Your task to perform on an android device: open chrome privacy settings Image 0: 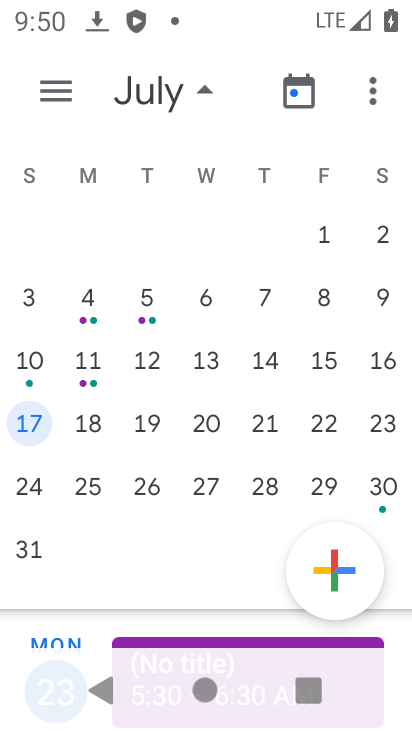
Step 0: press home button
Your task to perform on an android device: open chrome privacy settings Image 1: 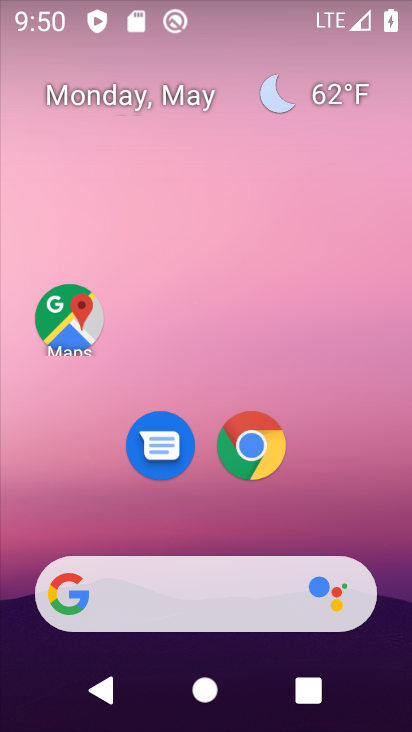
Step 1: drag from (396, 623) to (147, 5)
Your task to perform on an android device: open chrome privacy settings Image 2: 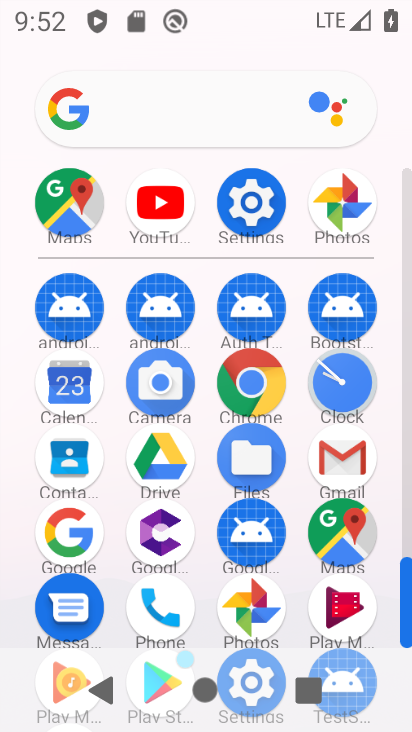
Step 2: click (248, 404)
Your task to perform on an android device: open chrome privacy settings Image 3: 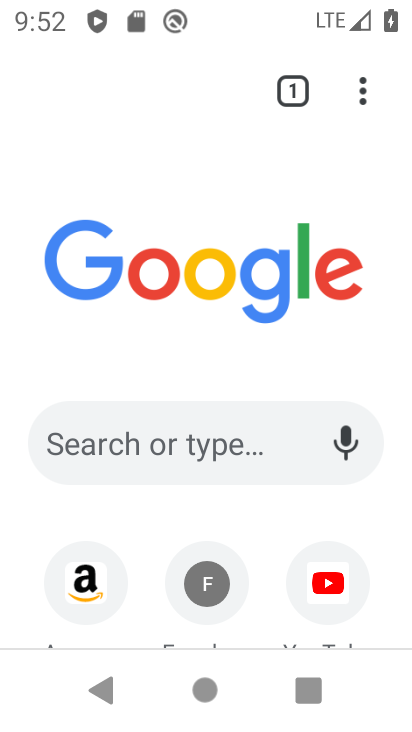
Step 3: click (356, 89)
Your task to perform on an android device: open chrome privacy settings Image 4: 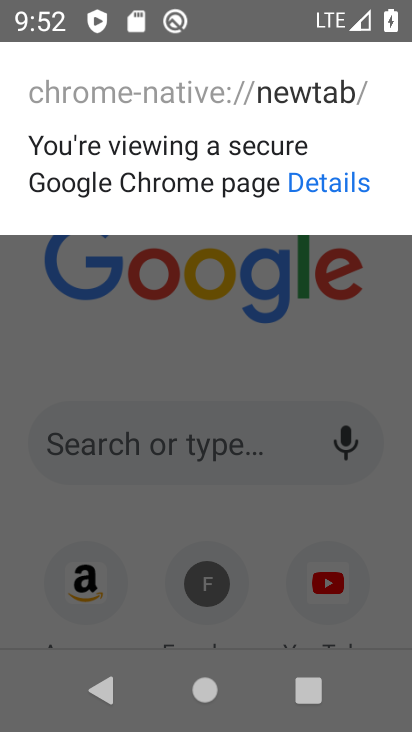
Step 4: press back button
Your task to perform on an android device: open chrome privacy settings Image 5: 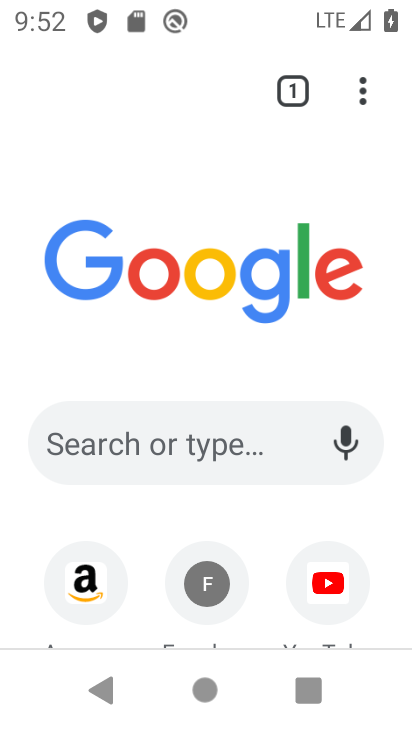
Step 5: click (358, 86)
Your task to perform on an android device: open chrome privacy settings Image 6: 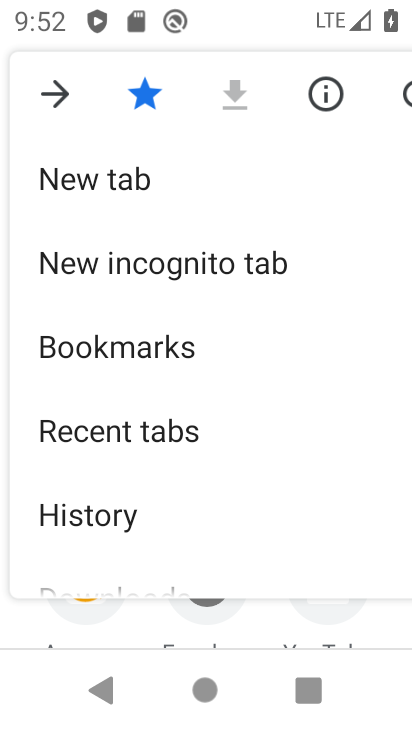
Step 6: drag from (216, 569) to (220, 151)
Your task to perform on an android device: open chrome privacy settings Image 7: 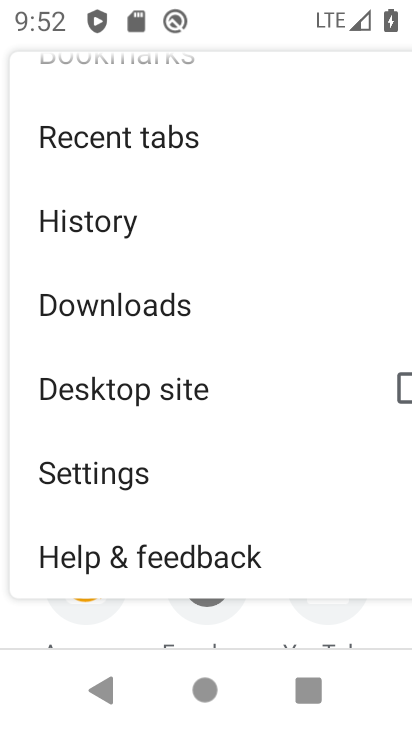
Step 7: click (174, 472)
Your task to perform on an android device: open chrome privacy settings Image 8: 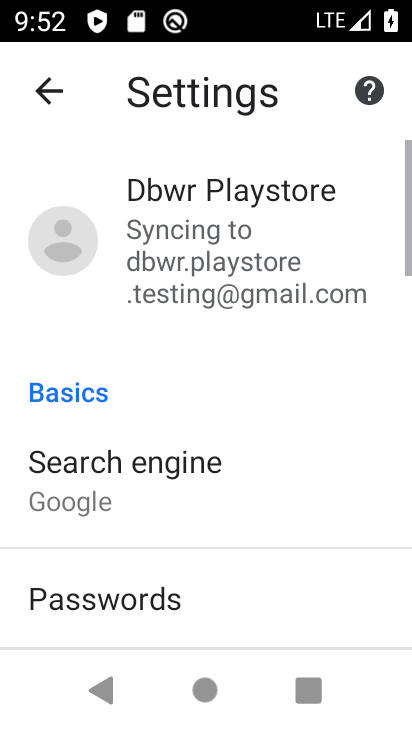
Step 8: drag from (183, 648) to (139, 72)
Your task to perform on an android device: open chrome privacy settings Image 9: 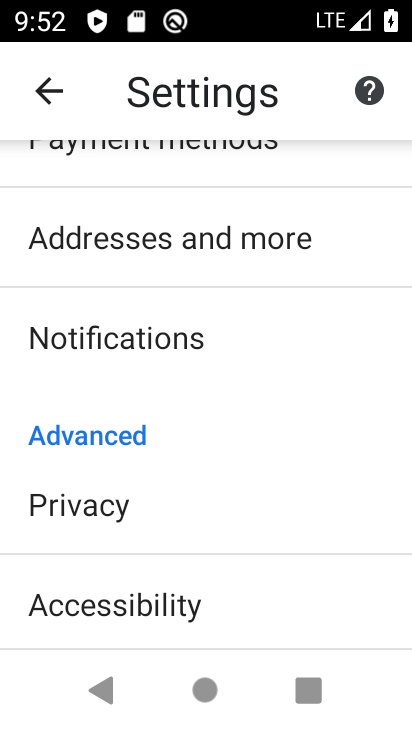
Step 9: click (128, 540)
Your task to perform on an android device: open chrome privacy settings Image 10: 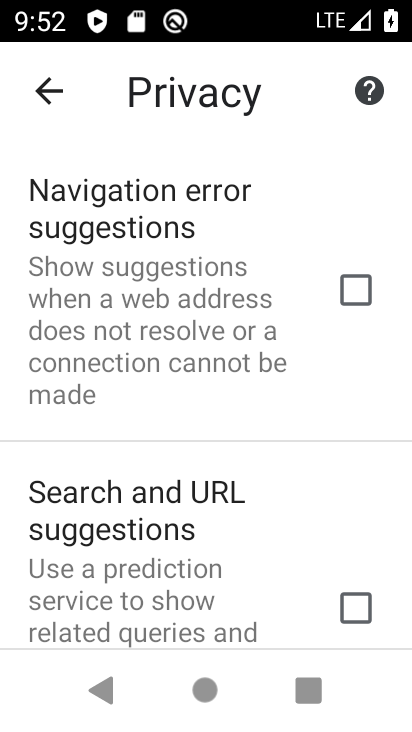
Step 10: task complete